Your task to perform on an android device: Show me the alarms in the clock app Image 0: 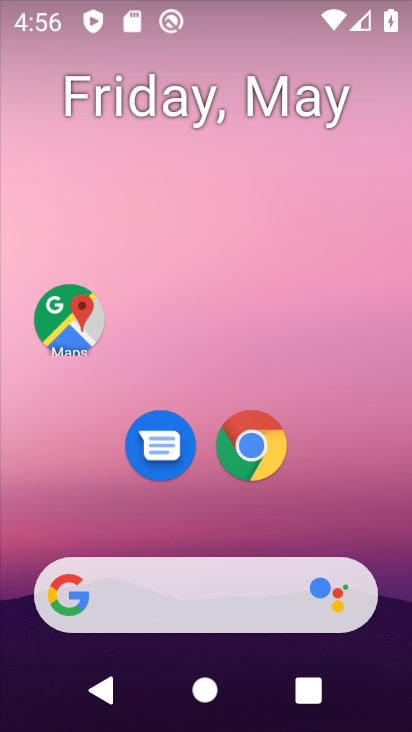
Step 0: drag from (311, 510) to (110, 258)
Your task to perform on an android device: Show me the alarms in the clock app Image 1: 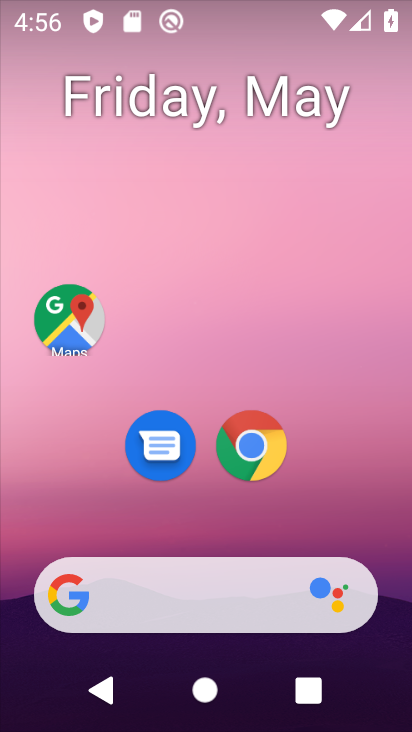
Step 1: drag from (280, 441) to (85, 110)
Your task to perform on an android device: Show me the alarms in the clock app Image 2: 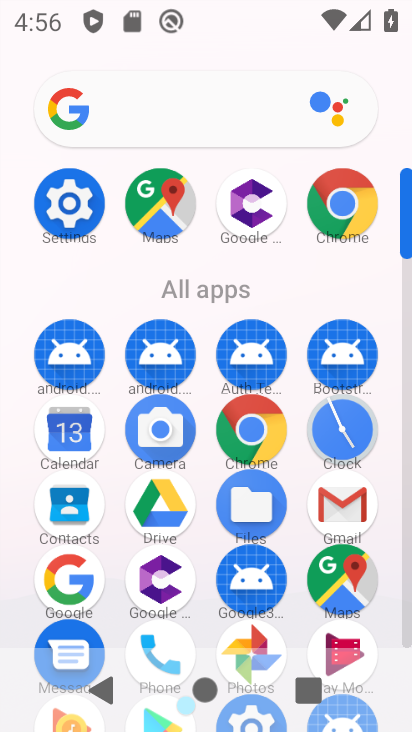
Step 2: click (355, 430)
Your task to perform on an android device: Show me the alarms in the clock app Image 3: 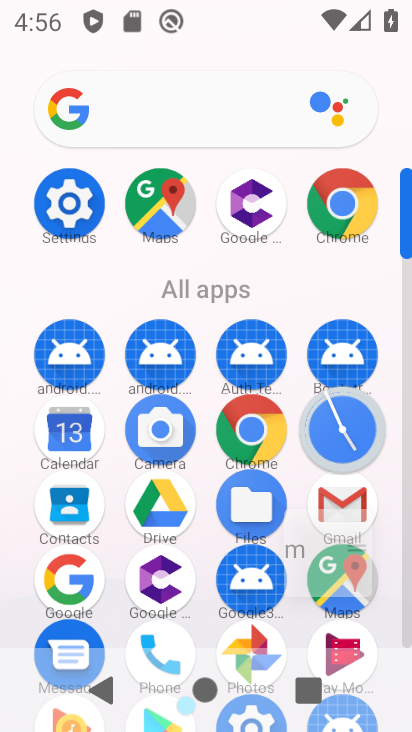
Step 3: click (354, 437)
Your task to perform on an android device: Show me the alarms in the clock app Image 4: 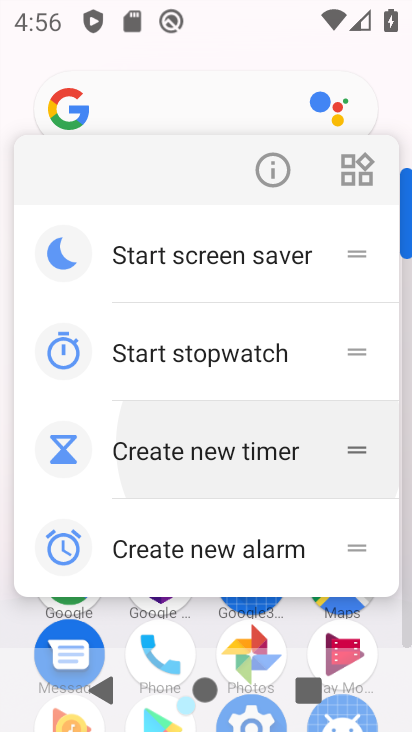
Step 4: click (354, 440)
Your task to perform on an android device: Show me the alarms in the clock app Image 5: 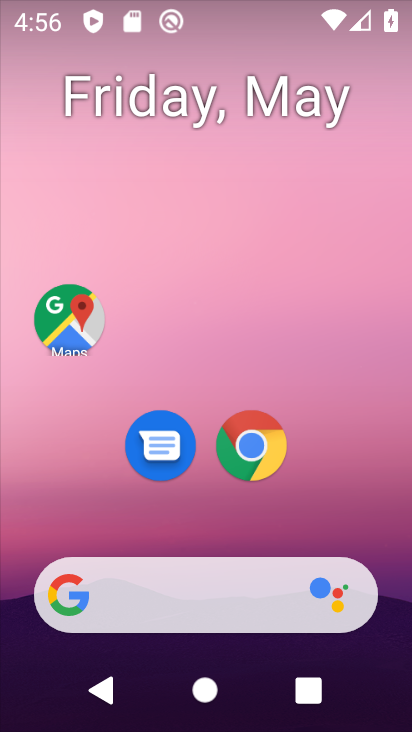
Step 5: click (332, 450)
Your task to perform on an android device: Show me the alarms in the clock app Image 6: 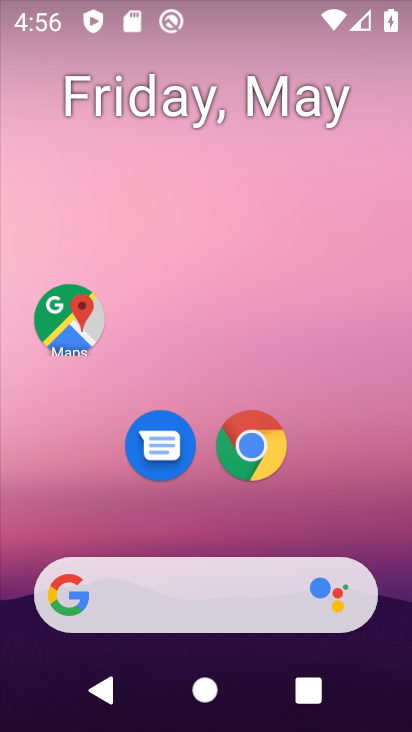
Step 6: click (331, 442)
Your task to perform on an android device: Show me the alarms in the clock app Image 7: 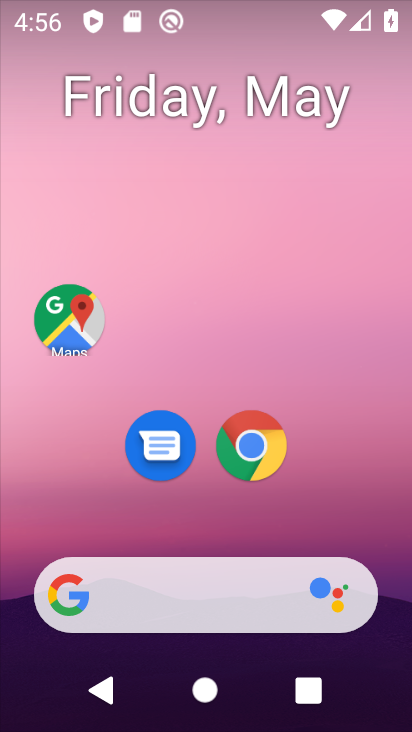
Step 7: drag from (377, 672) to (90, 149)
Your task to perform on an android device: Show me the alarms in the clock app Image 8: 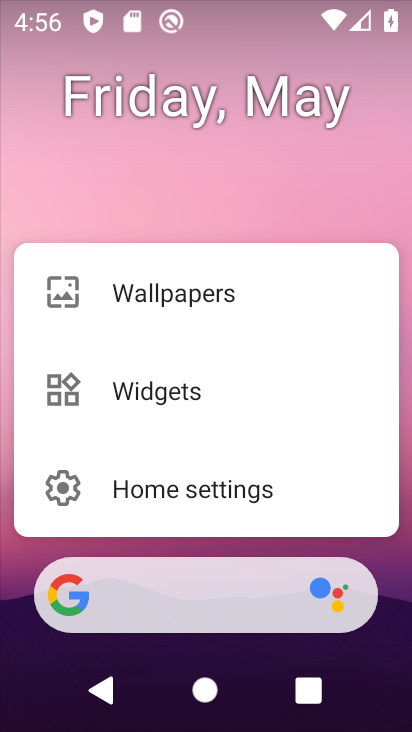
Step 8: click (132, 196)
Your task to perform on an android device: Show me the alarms in the clock app Image 9: 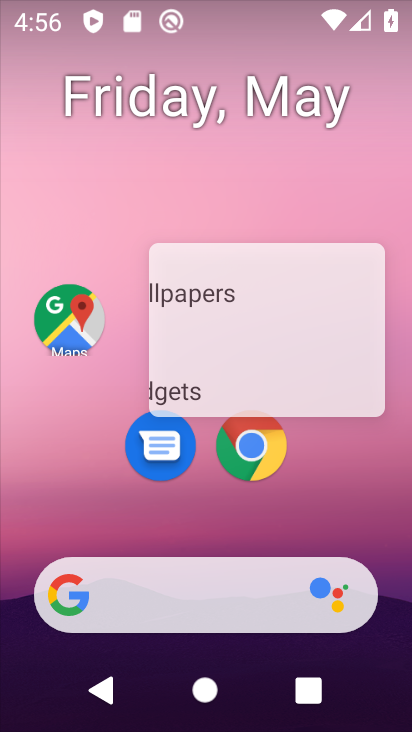
Step 9: click (131, 197)
Your task to perform on an android device: Show me the alarms in the clock app Image 10: 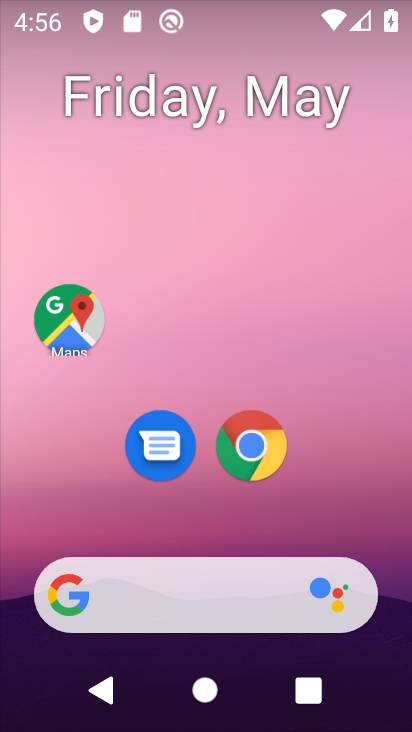
Step 10: click (131, 197)
Your task to perform on an android device: Show me the alarms in the clock app Image 11: 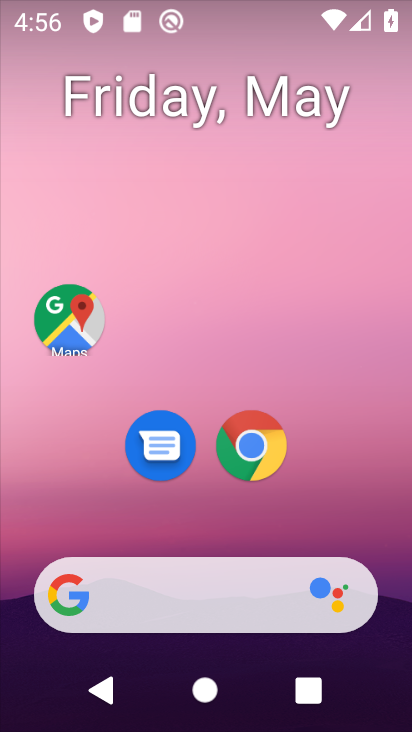
Step 11: click (131, 197)
Your task to perform on an android device: Show me the alarms in the clock app Image 12: 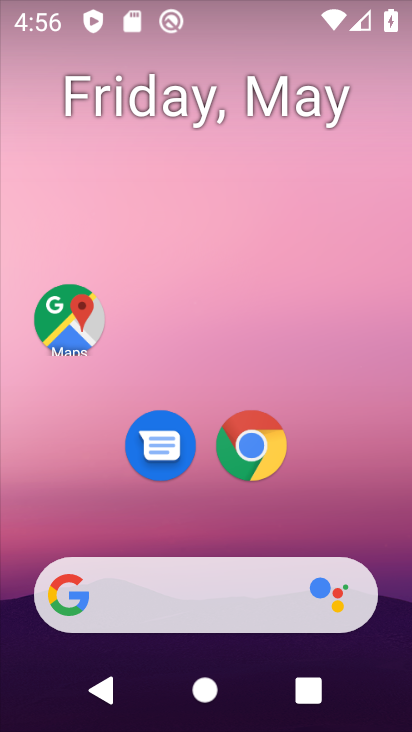
Step 12: click (130, 196)
Your task to perform on an android device: Show me the alarms in the clock app Image 13: 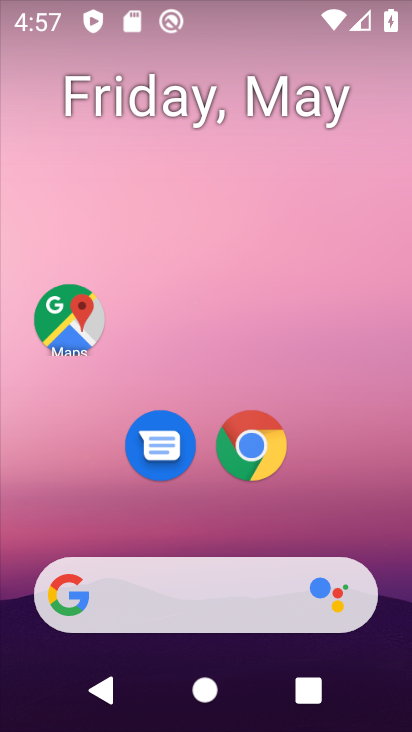
Step 13: drag from (326, 459) to (98, 71)
Your task to perform on an android device: Show me the alarms in the clock app Image 14: 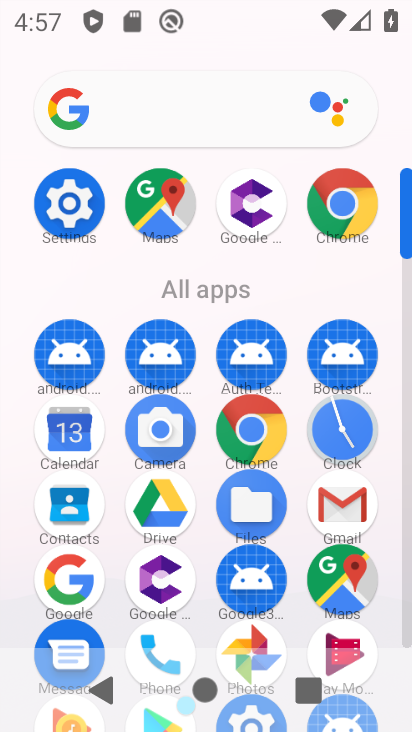
Step 14: click (337, 436)
Your task to perform on an android device: Show me the alarms in the clock app Image 15: 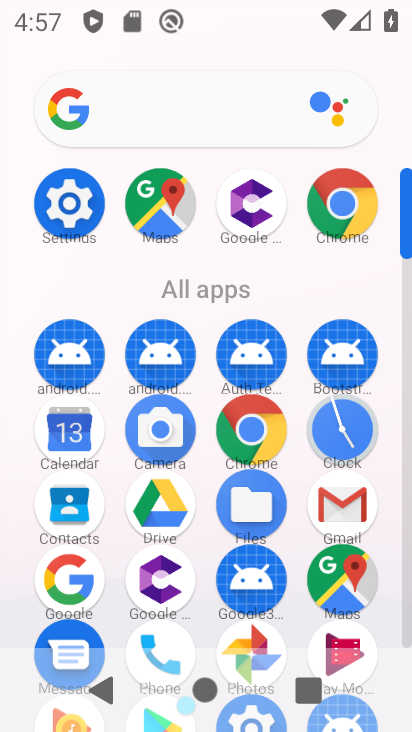
Step 15: click (337, 436)
Your task to perform on an android device: Show me the alarms in the clock app Image 16: 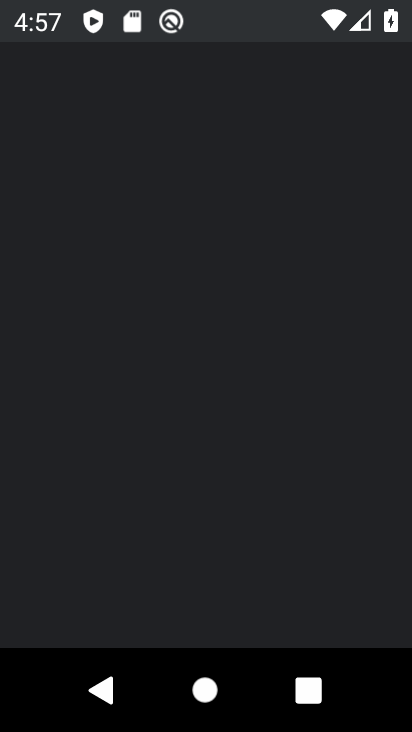
Step 16: click (337, 436)
Your task to perform on an android device: Show me the alarms in the clock app Image 17: 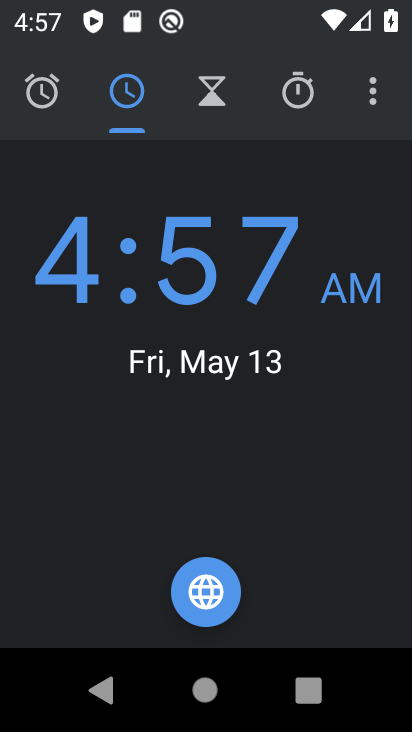
Step 17: click (47, 84)
Your task to perform on an android device: Show me the alarms in the clock app Image 18: 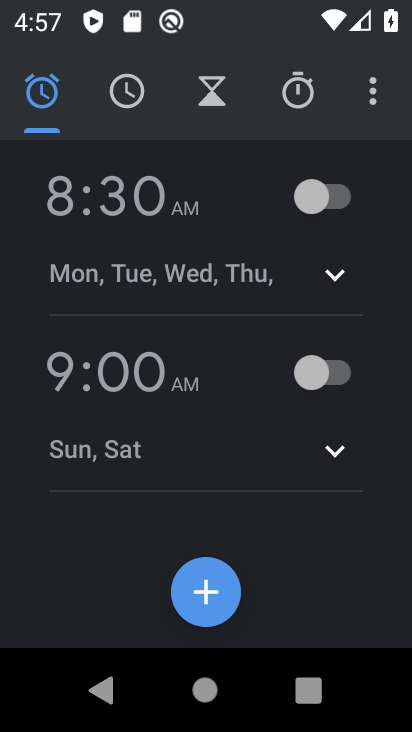
Step 18: click (321, 196)
Your task to perform on an android device: Show me the alarms in the clock app Image 19: 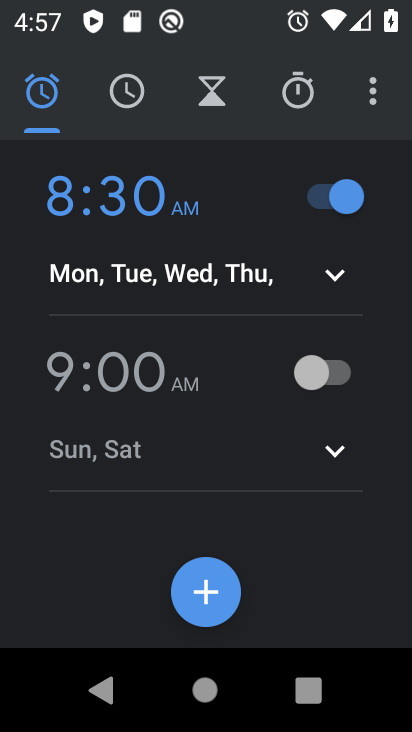
Step 19: task complete